Your task to perform on an android device: Open my contact list Image 0: 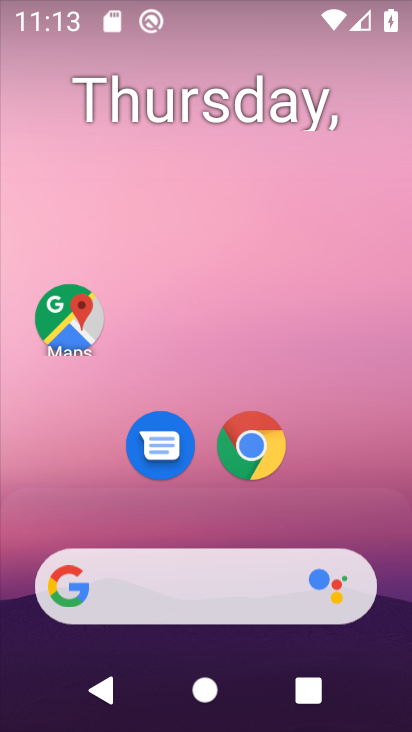
Step 0: drag from (365, 165) to (356, 18)
Your task to perform on an android device: Open my contact list Image 1: 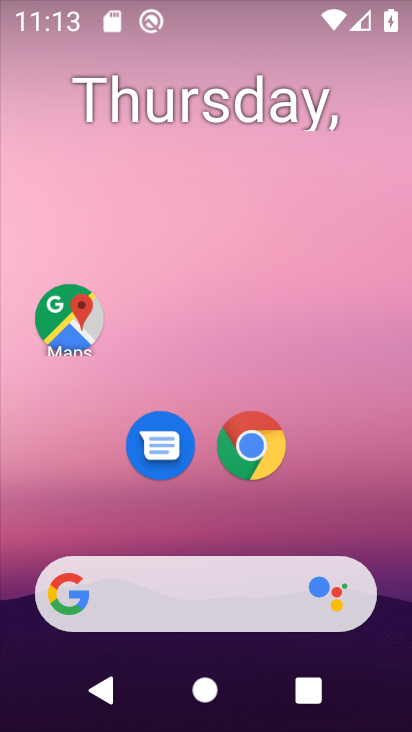
Step 1: drag from (372, 311) to (358, 115)
Your task to perform on an android device: Open my contact list Image 2: 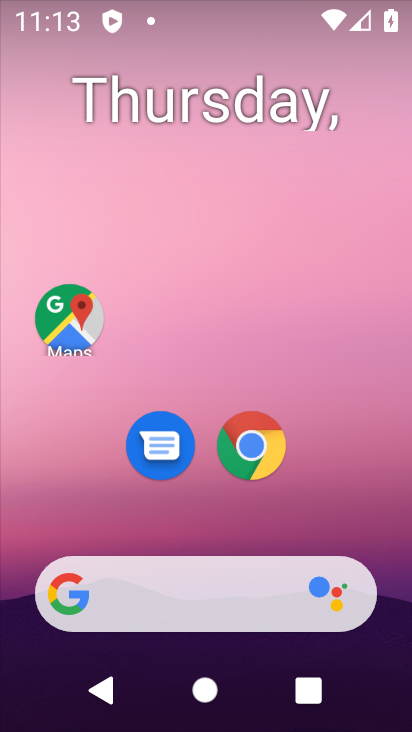
Step 2: drag from (354, 445) to (385, 54)
Your task to perform on an android device: Open my contact list Image 3: 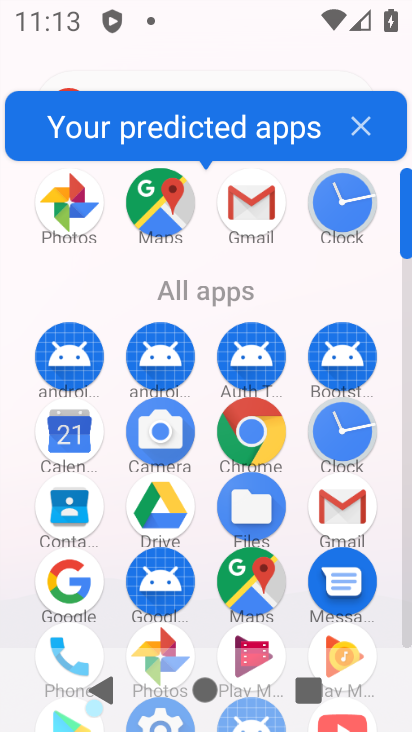
Step 3: drag from (389, 556) to (407, 208)
Your task to perform on an android device: Open my contact list Image 4: 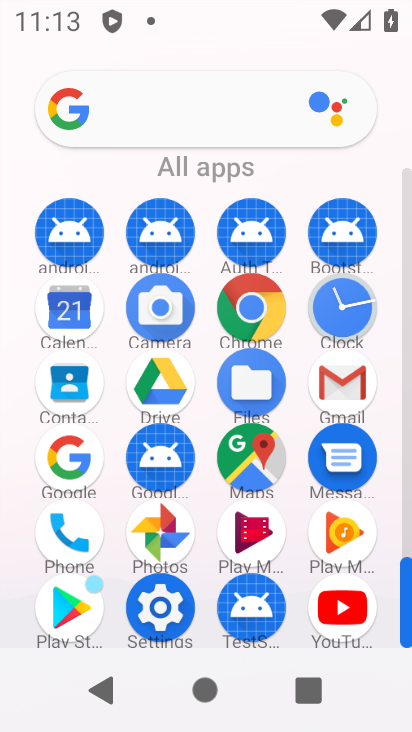
Step 4: click (69, 358)
Your task to perform on an android device: Open my contact list Image 5: 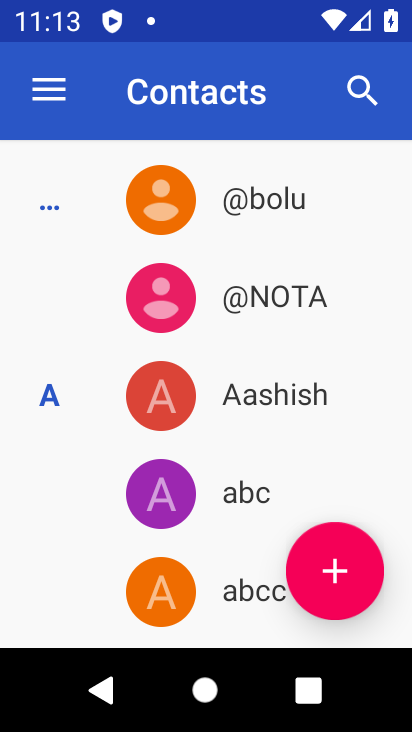
Step 5: task complete